Your task to perform on an android device: Open location settings Image 0: 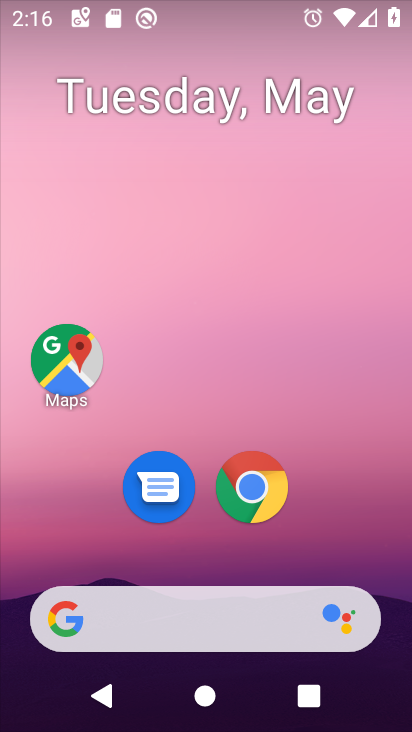
Step 0: drag from (35, 592) to (221, 216)
Your task to perform on an android device: Open location settings Image 1: 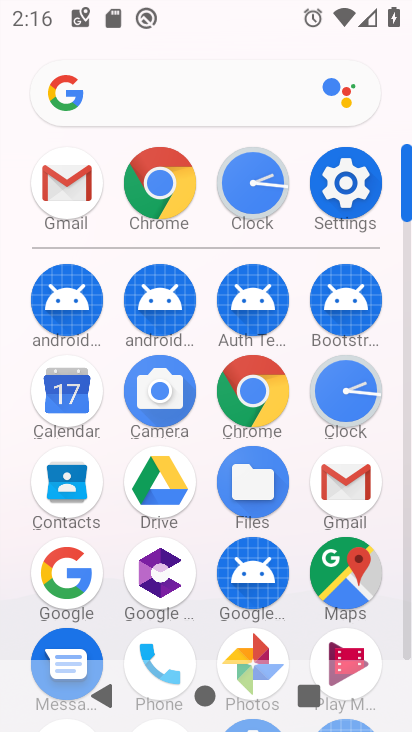
Step 1: click (347, 185)
Your task to perform on an android device: Open location settings Image 2: 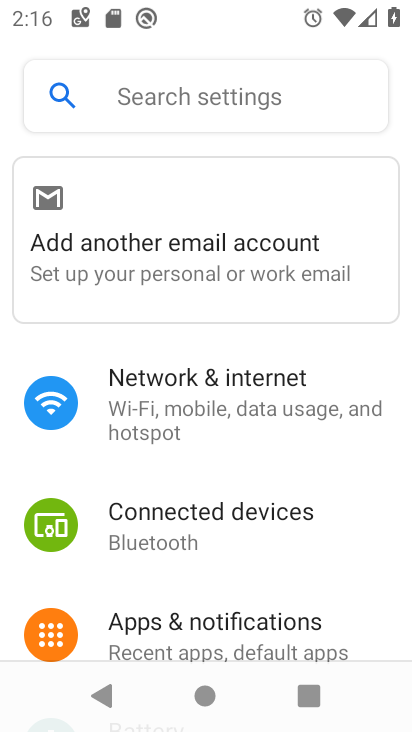
Step 2: drag from (47, 574) to (228, 277)
Your task to perform on an android device: Open location settings Image 3: 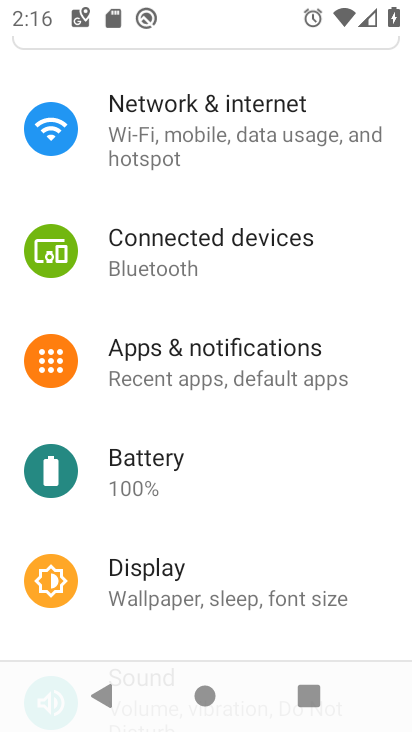
Step 3: drag from (168, 577) to (322, 214)
Your task to perform on an android device: Open location settings Image 4: 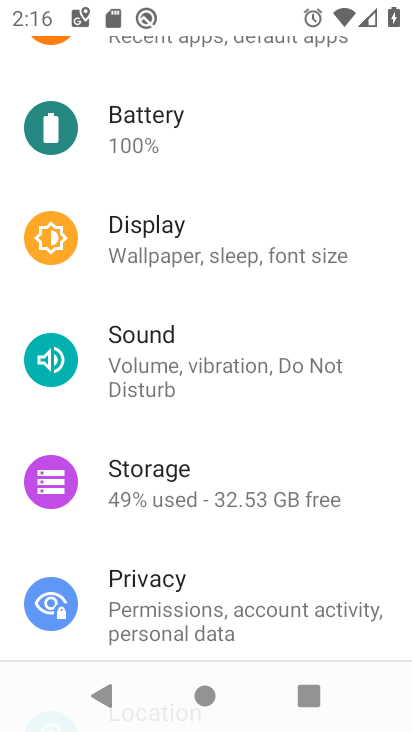
Step 4: drag from (193, 552) to (311, 206)
Your task to perform on an android device: Open location settings Image 5: 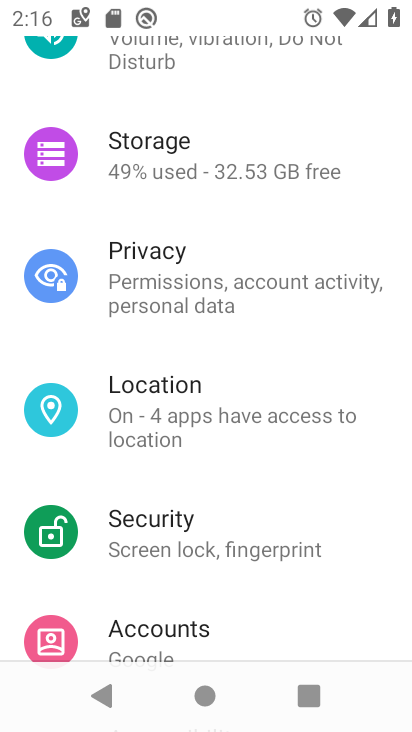
Step 5: click (244, 403)
Your task to perform on an android device: Open location settings Image 6: 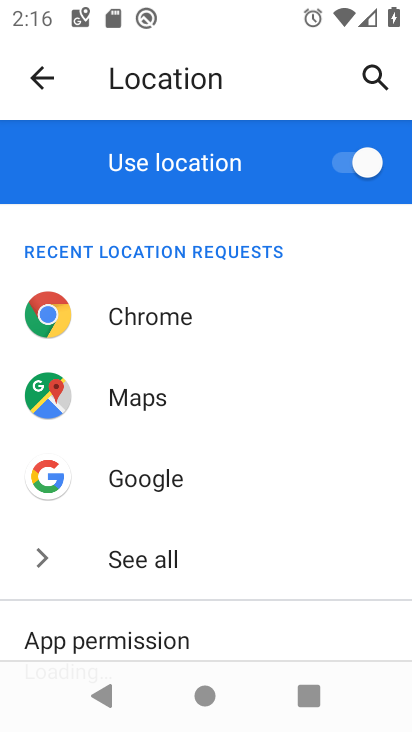
Step 6: drag from (149, 573) to (255, 195)
Your task to perform on an android device: Open location settings Image 7: 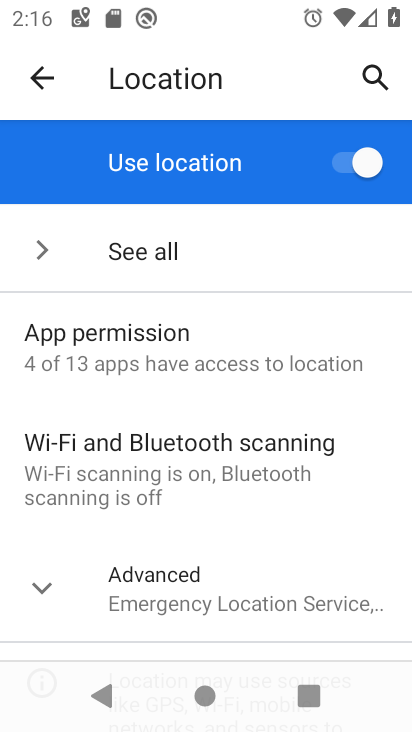
Step 7: click (155, 368)
Your task to perform on an android device: Open location settings Image 8: 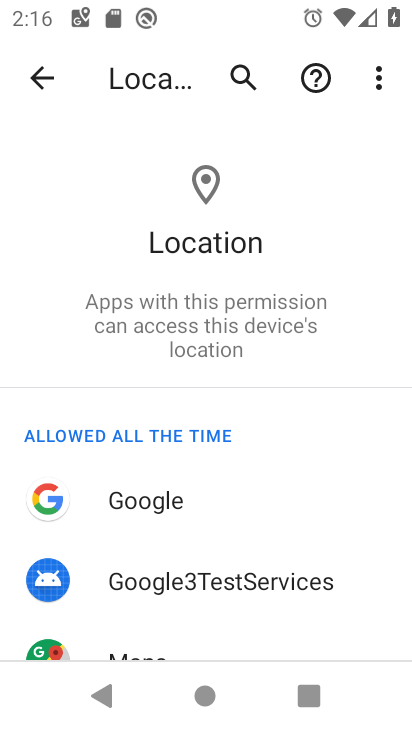
Step 8: task complete